Your task to perform on an android device: open sync settings in chrome Image 0: 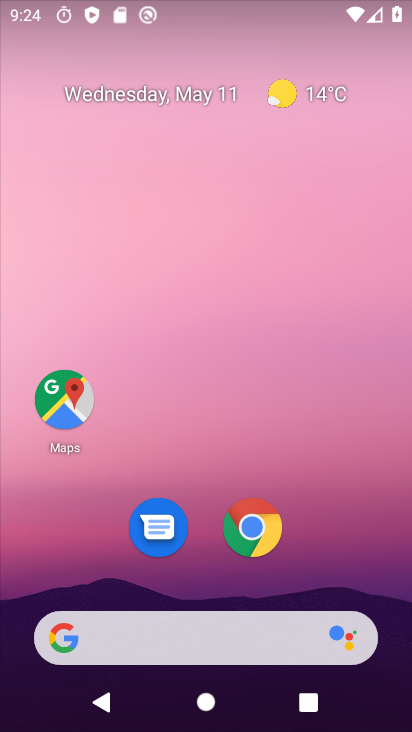
Step 0: drag from (247, 609) to (247, 119)
Your task to perform on an android device: open sync settings in chrome Image 1: 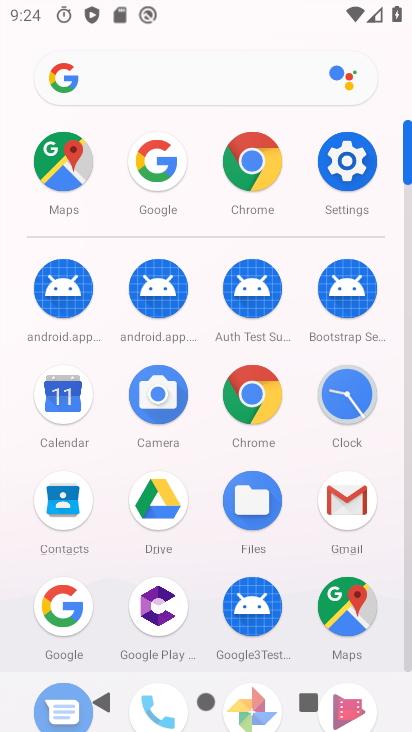
Step 1: click (258, 184)
Your task to perform on an android device: open sync settings in chrome Image 2: 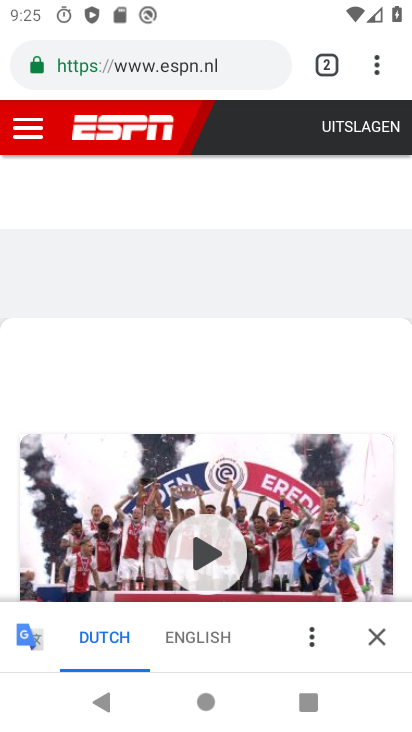
Step 2: click (378, 57)
Your task to perform on an android device: open sync settings in chrome Image 3: 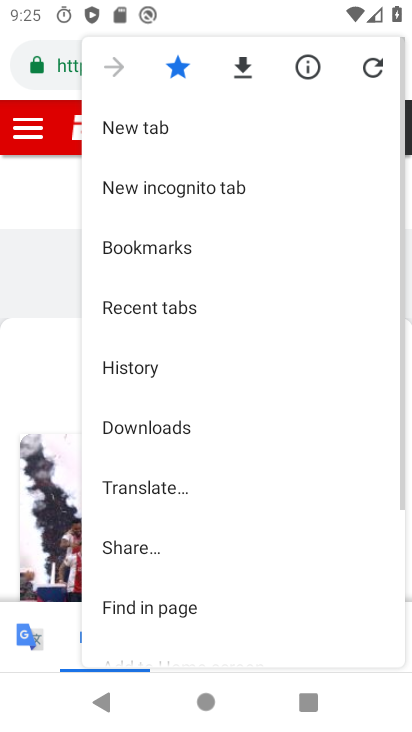
Step 3: drag from (224, 525) to (272, 163)
Your task to perform on an android device: open sync settings in chrome Image 4: 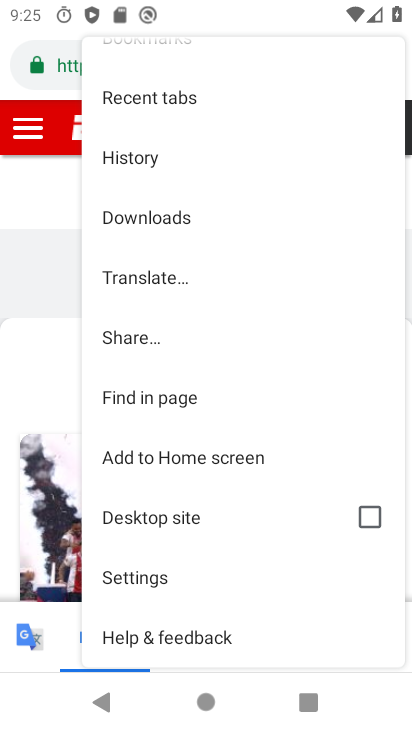
Step 4: click (192, 559)
Your task to perform on an android device: open sync settings in chrome Image 5: 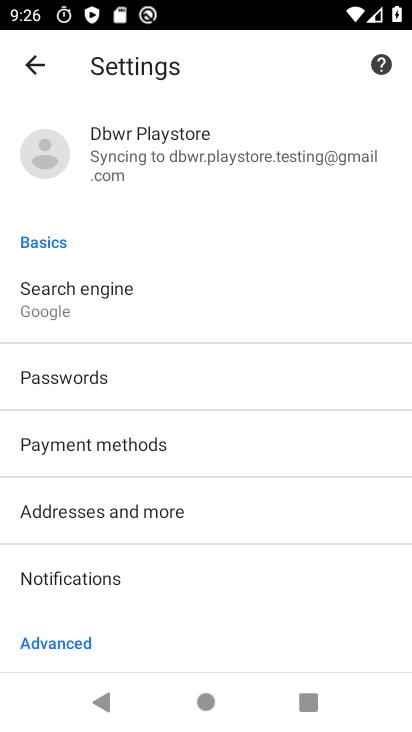
Step 5: click (198, 183)
Your task to perform on an android device: open sync settings in chrome Image 6: 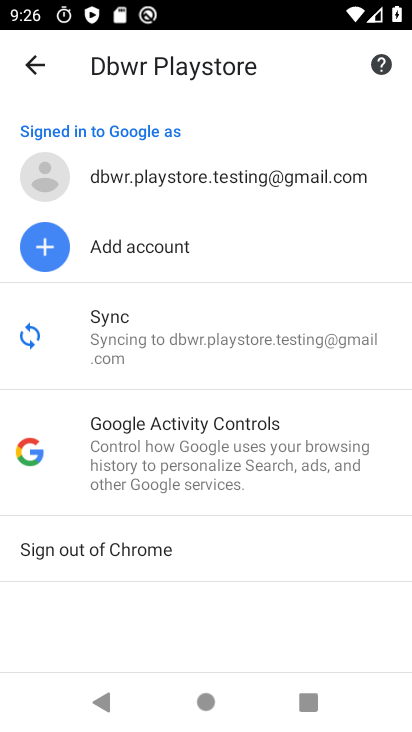
Step 6: click (214, 349)
Your task to perform on an android device: open sync settings in chrome Image 7: 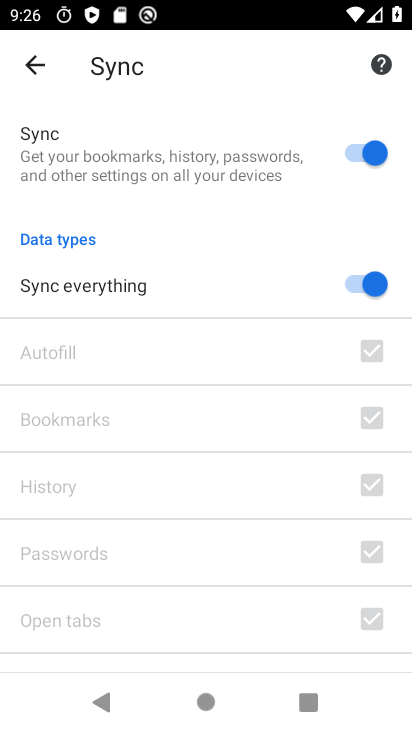
Step 7: task complete